Your task to perform on an android device: turn on improve location accuracy Image 0: 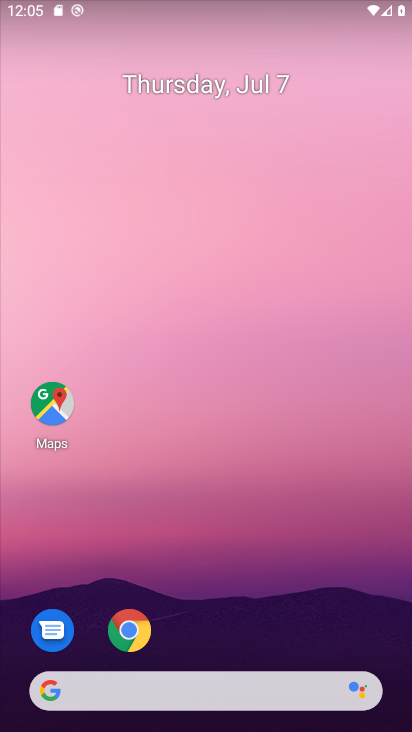
Step 0: drag from (231, 643) to (261, 301)
Your task to perform on an android device: turn on improve location accuracy Image 1: 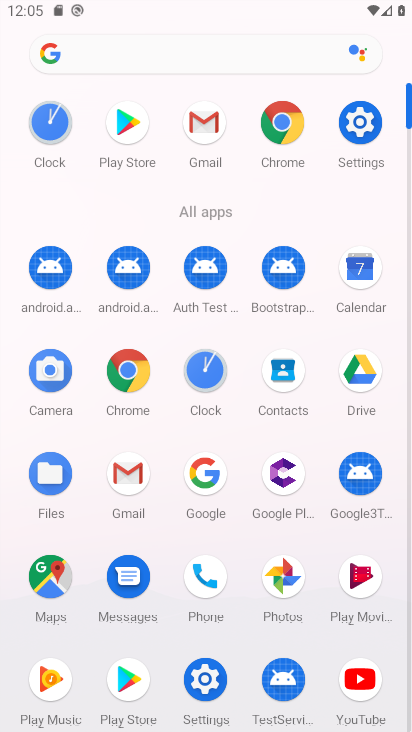
Step 1: click (346, 125)
Your task to perform on an android device: turn on improve location accuracy Image 2: 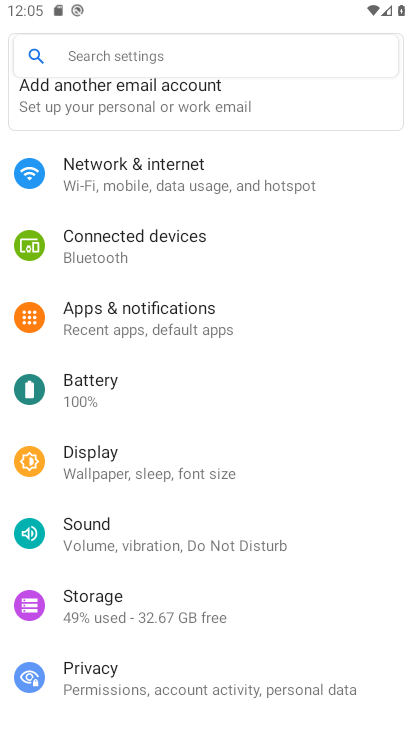
Step 2: drag from (164, 550) to (151, 290)
Your task to perform on an android device: turn on improve location accuracy Image 3: 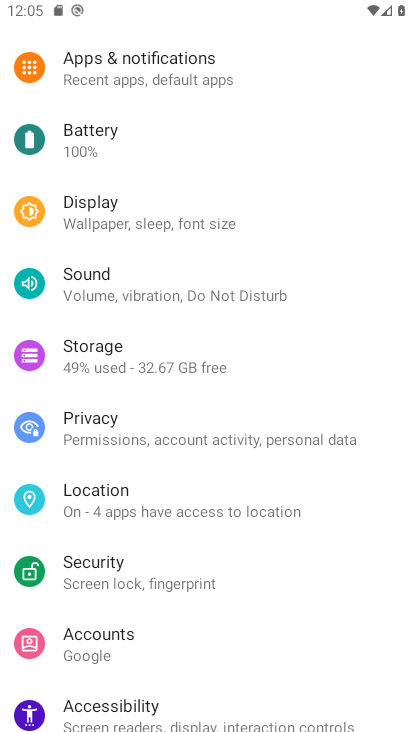
Step 3: click (108, 492)
Your task to perform on an android device: turn on improve location accuracy Image 4: 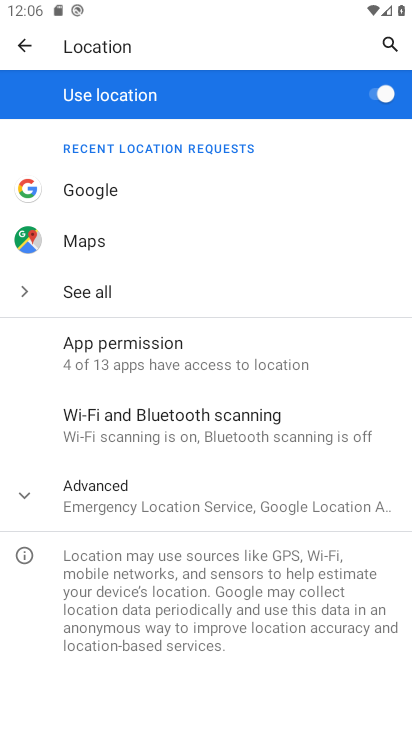
Step 4: click (167, 509)
Your task to perform on an android device: turn on improve location accuracy Image 5: 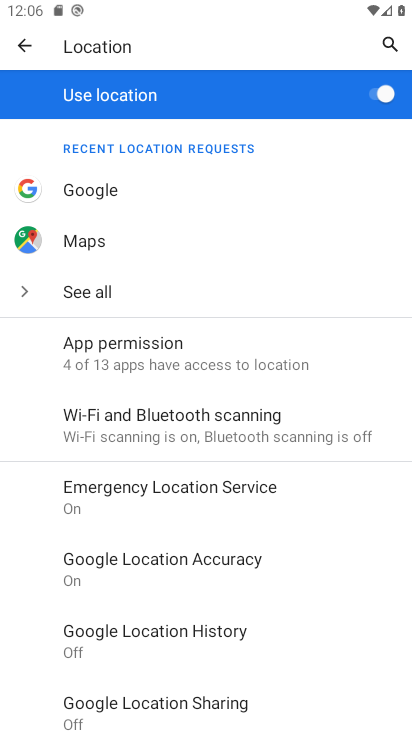
Step 5: click (223, 567)
Your task to perform on an android device: turn on improve location accuracy Image 6: 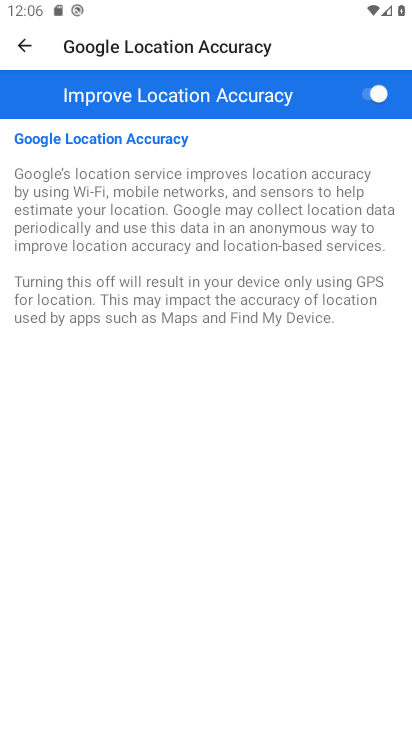
Step 6: task complete